Your task to perform on an android device: Show me the alarms in the clock app Image 0: 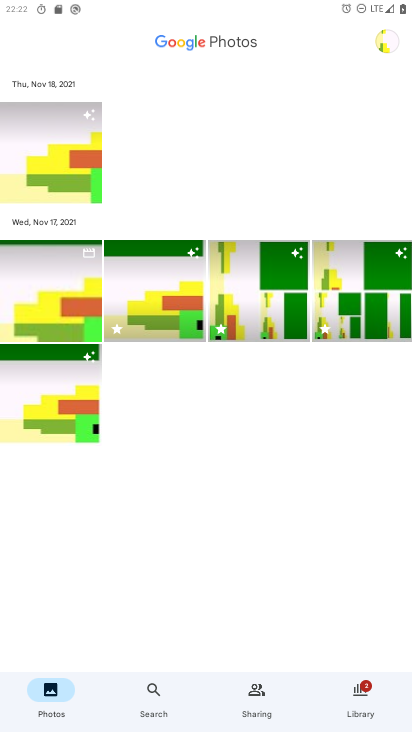
Step 0: press home button
Your task to perform on an android device: Show me the alarms in the clock app Image 1: 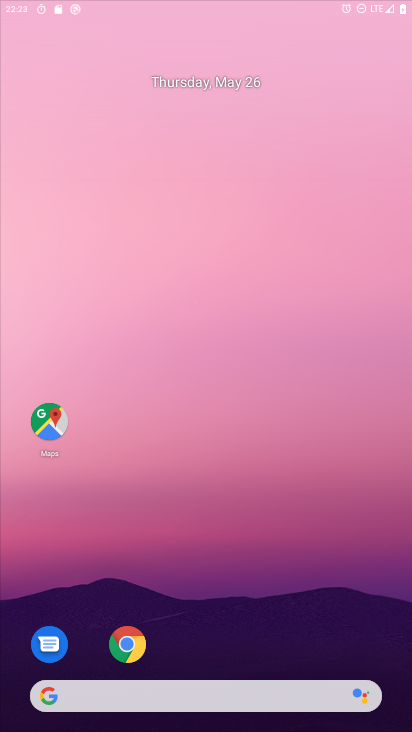
Step 1: drag from (182, 630) to (267, 113)
Your task to perform on an android device: Show me the alarms in the clock app Image 2: 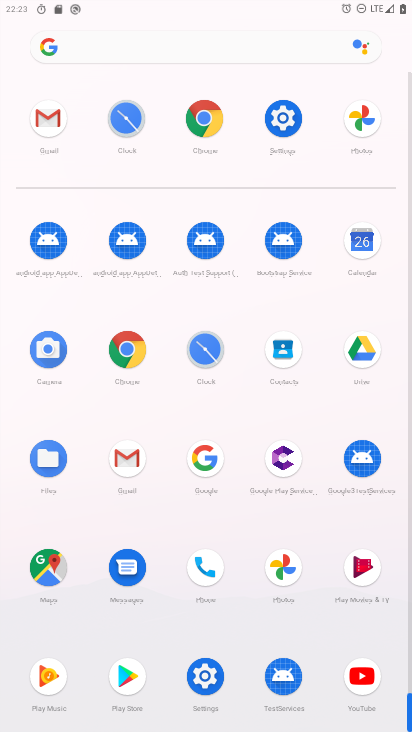
Step 2: click (215, 352)
Your task to perform on an android device: Show me the alarms in the clock app Image 3: 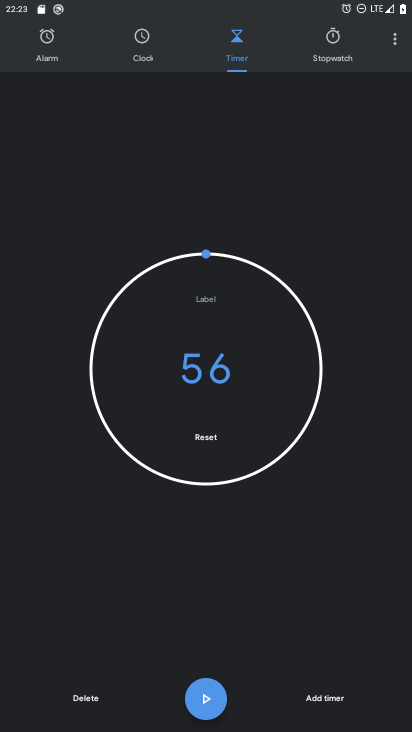
Step 3: drag from (258, 590) to (334, 245)
Your task to perform on an android device: Show me the alarms in the clock app Image 4: 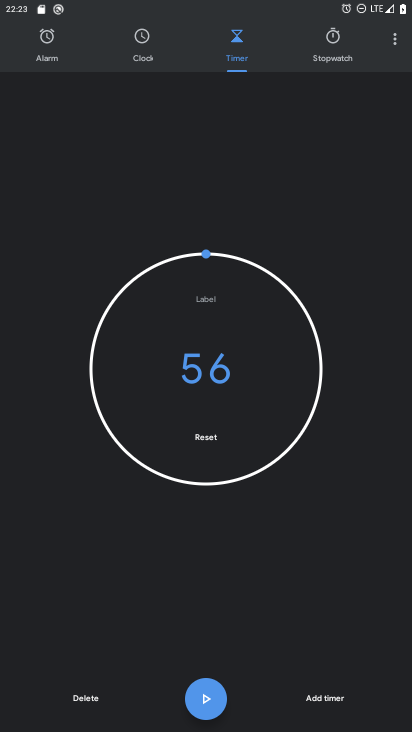
Step 4: drag from (292, 596) to (352, 358)
Your task to perform on an android device: Show me the alarms in the clock app Image 5: 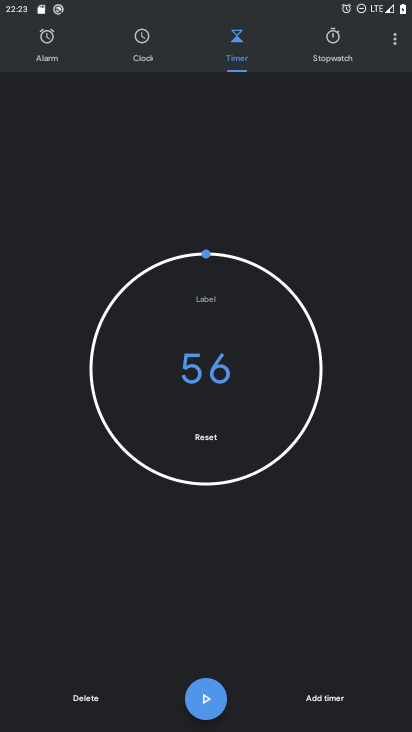
Step 5: click (52, 38)
Your task to perform on an android device: Show me the alarms in the clock app Image 6: 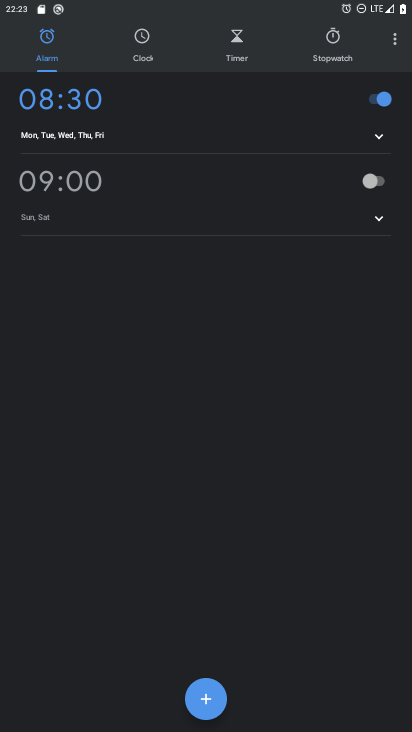
Step 6: task complete